Your task to perform on an android device: find photos in the google photos app Image 0: 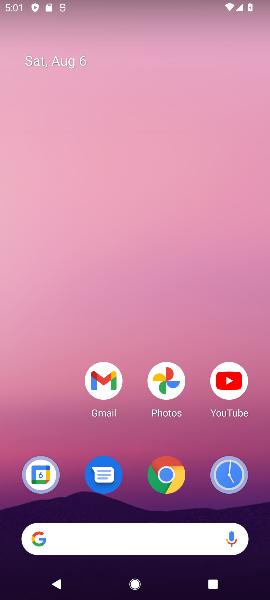
Step 0: click (165, 381)
Your task to perform on an android device: find photos in the google photos app Image 1: 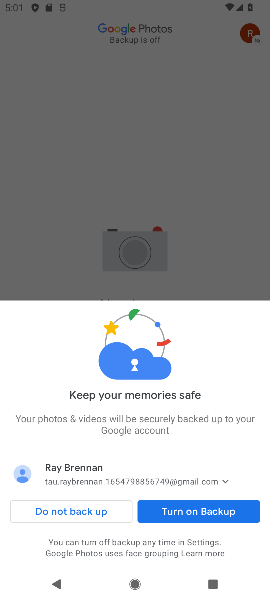
Step 1: click (103, 507)
Your task to perform on an android device: find photos in the google photos app Image 2: 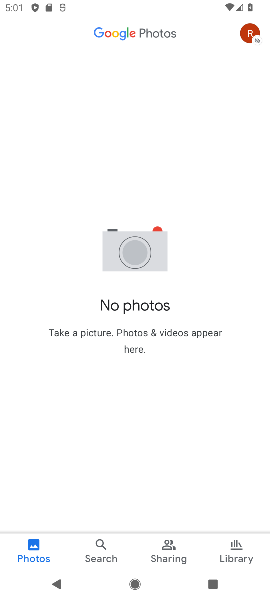
Step 2: task complete